Your task to perform on an android device: Open sound settings Image 0: 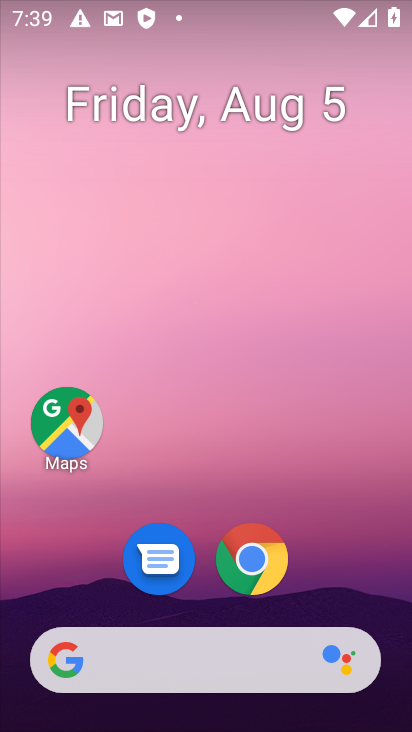
Step 0: drag from (206, 608) to (260, 18)
Your task to perform on an android device: Open sound settings Image 1: 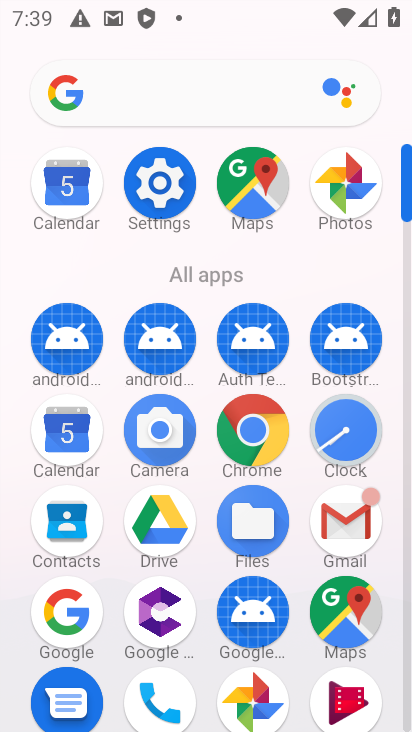
Step 1: click (165, 208)
Your task to perform on an android device: Open sound settings Image 2: 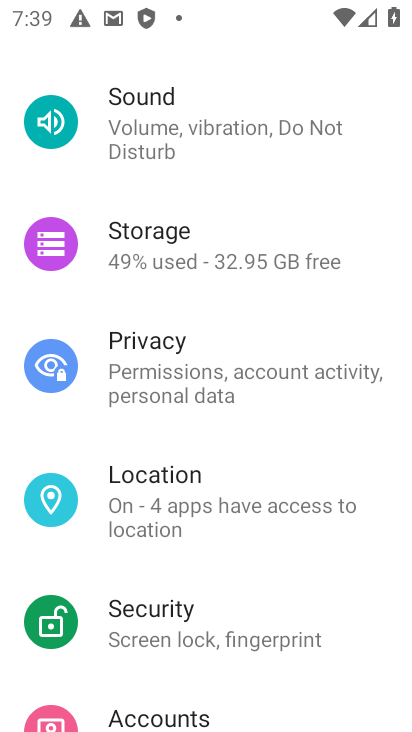
Step 2: click (168, 145)
Your task to perform on an android device: Open sound settings Image 3: 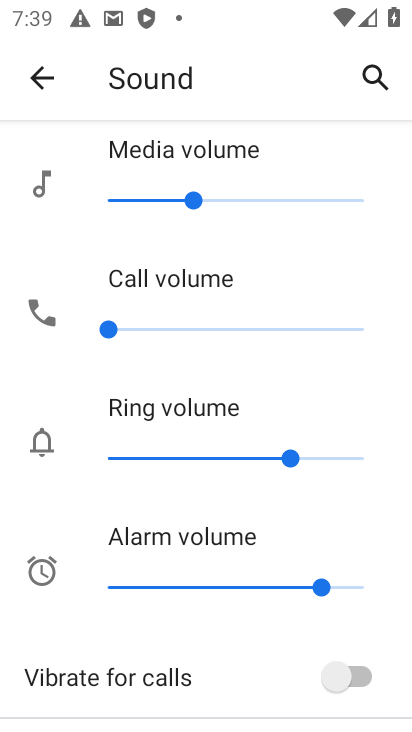
Step 3: task complete